Your task to perform on an android device: Open Yahoo.com Image 0: 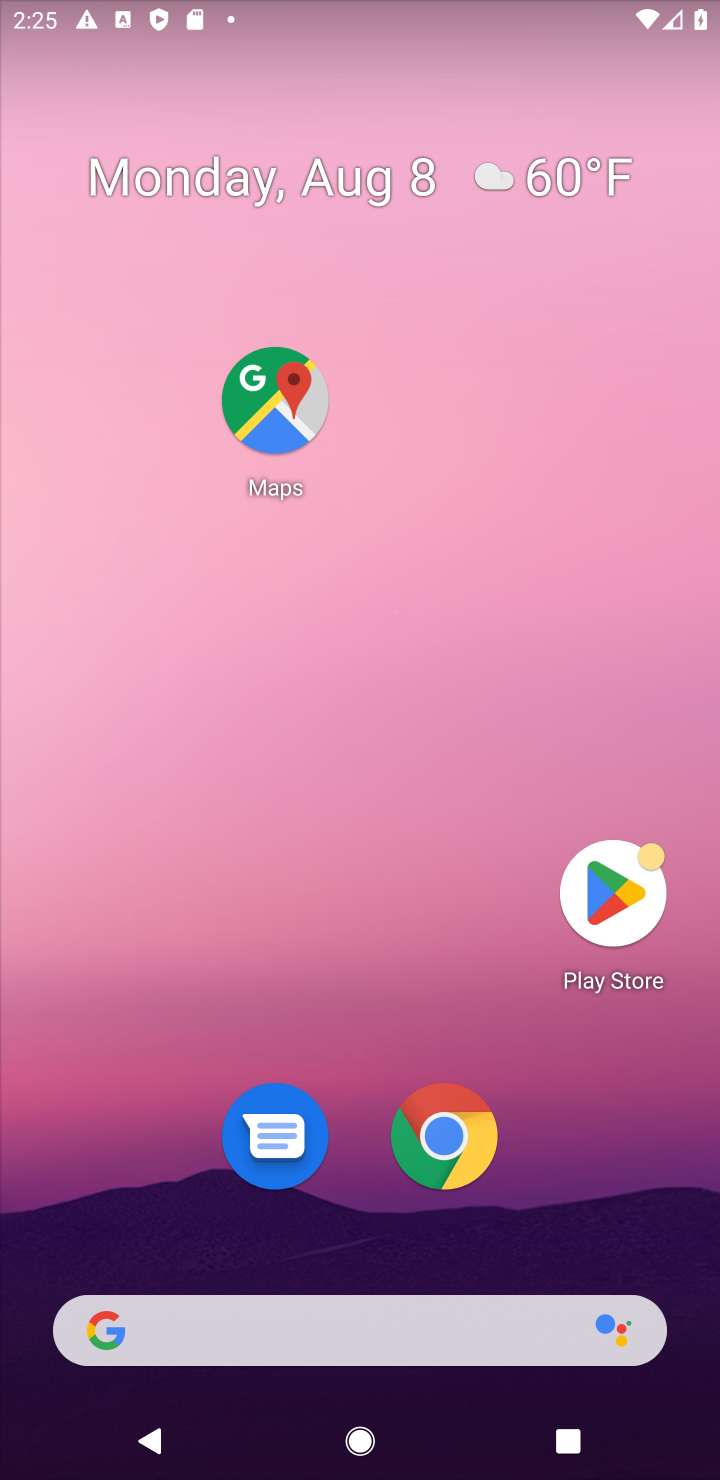
Step 0: click (273, 1335)
Your task to perform on an android device: Open Yahoo.com Image 1: 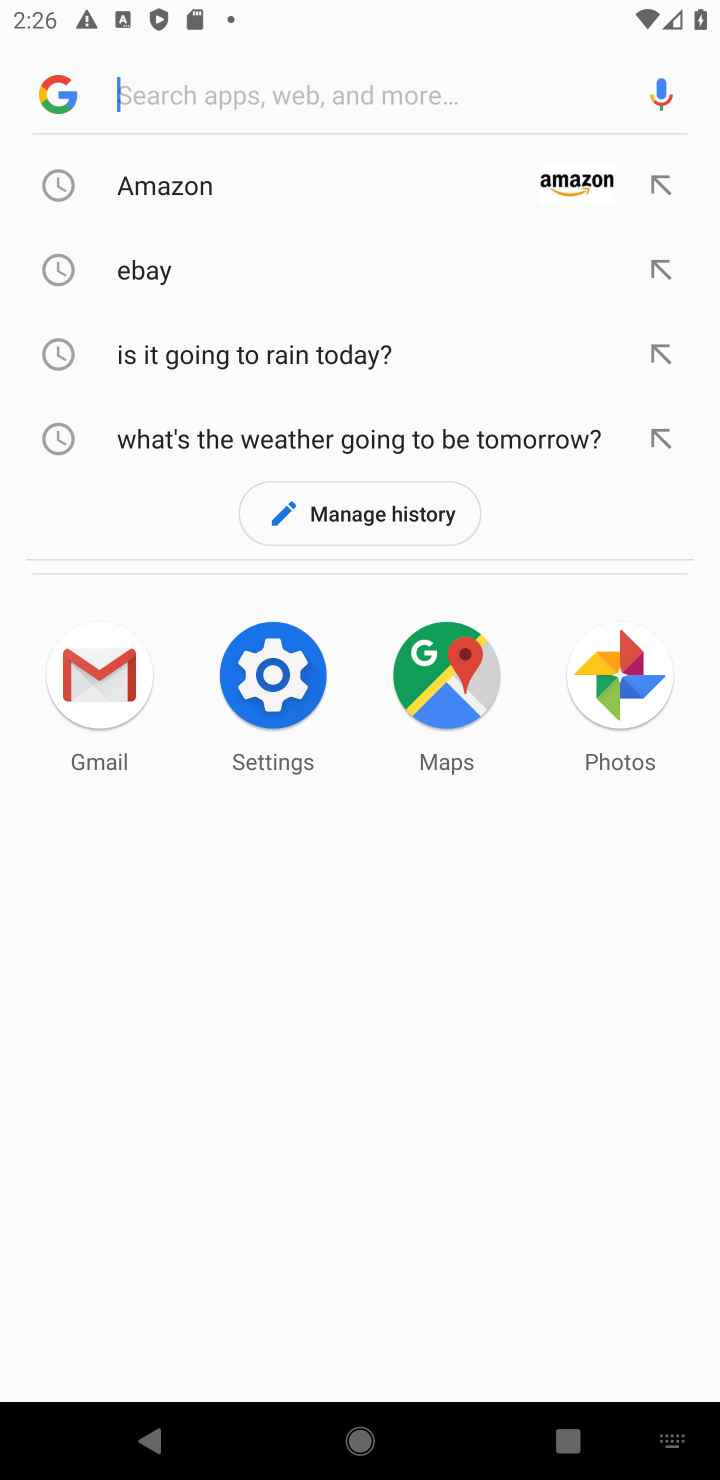
Step 1: type "Yahoo.com"
Your task to perform on an android device: Open Yahoo.com Image 2: 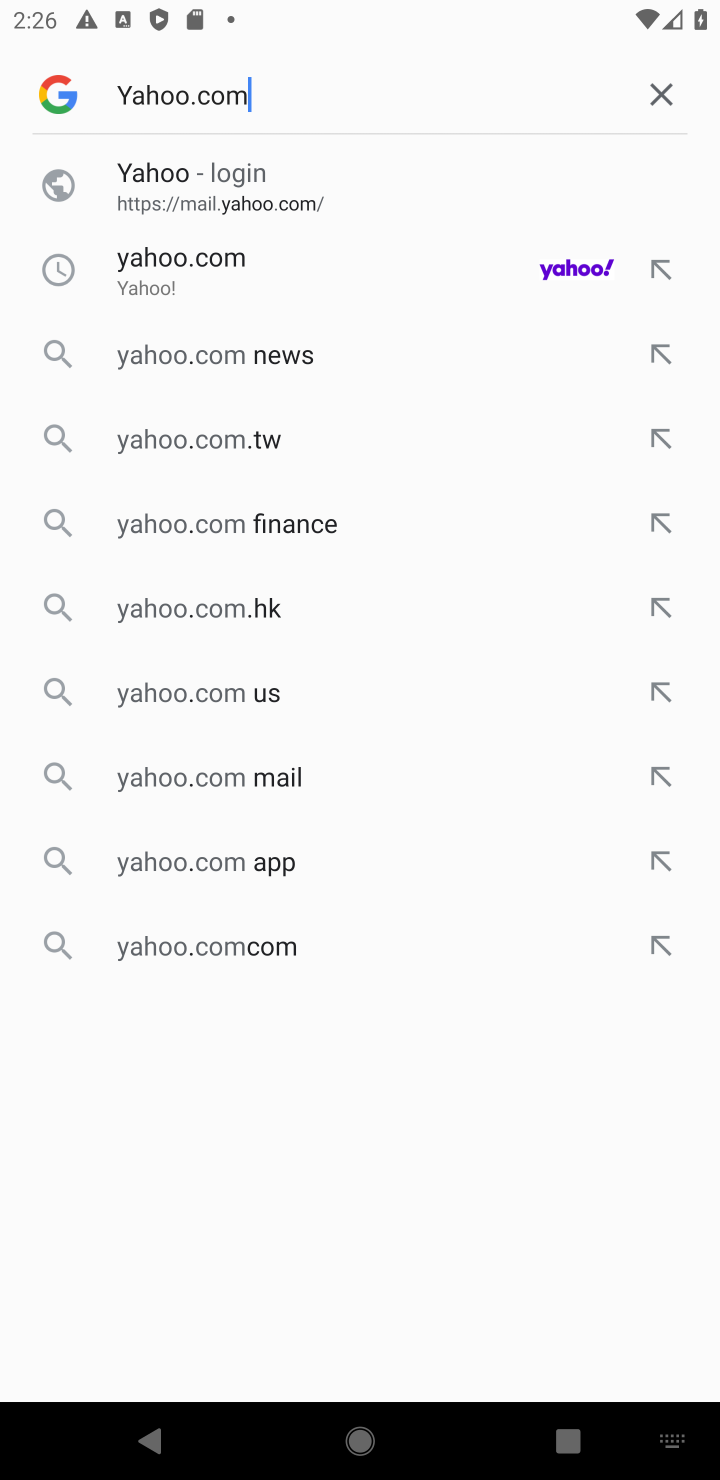
Step 2: click (170, 246)
Your task to perform on an android device: Open Yahoo.com Image 3: 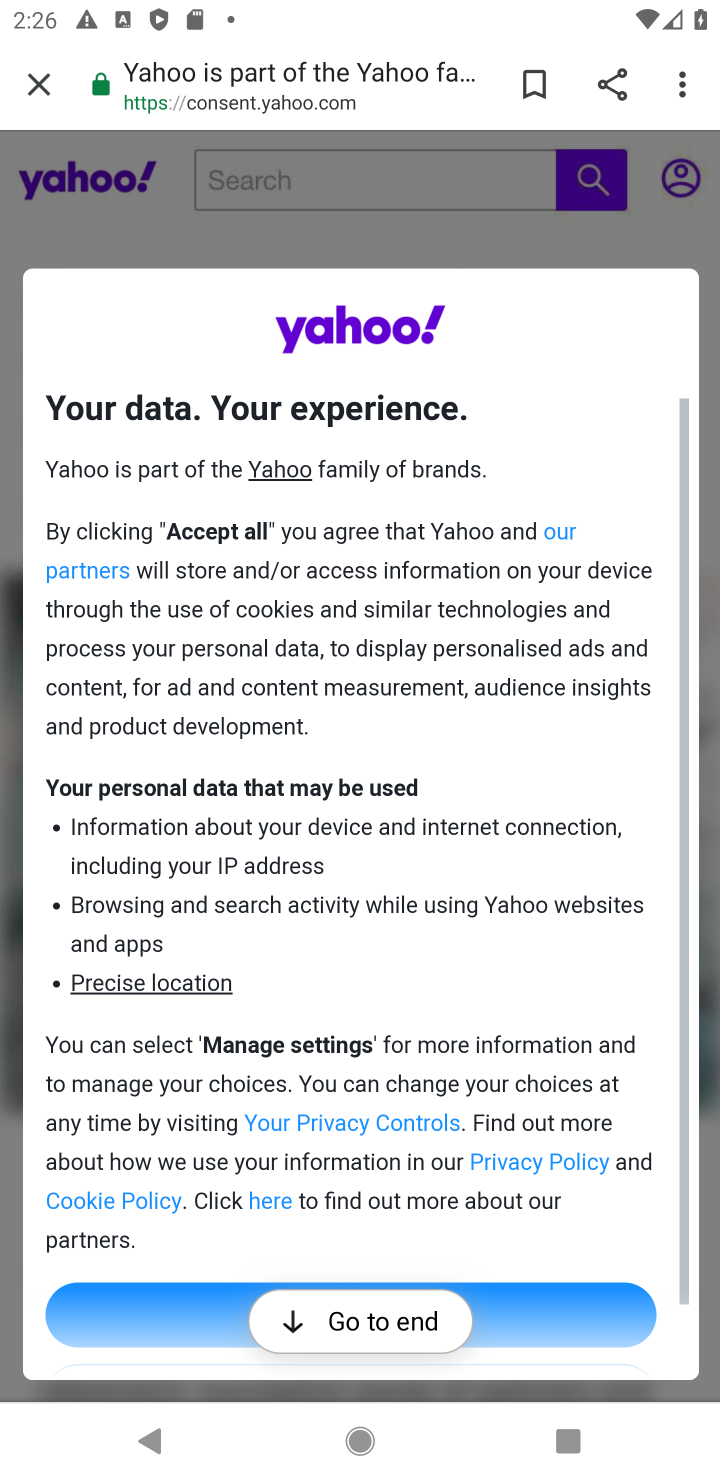
Step 3: task complete